Your task to perform on an android device: Go to CNN.com Image 0: 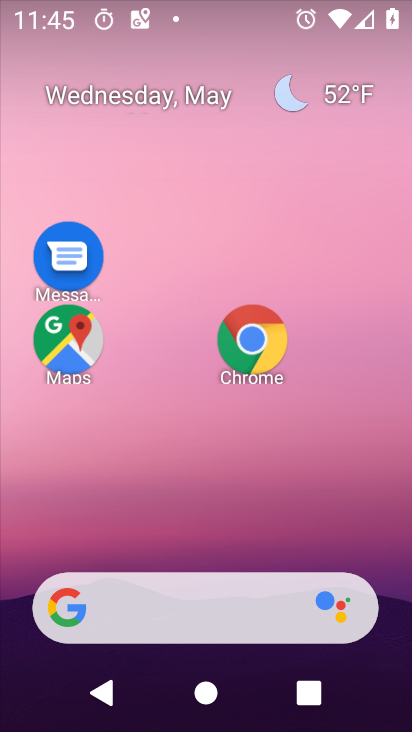
Step 0: drag from (165, 522) to (203, 45)
Your task to perform on an android device: Go to CNN.com Image 1: 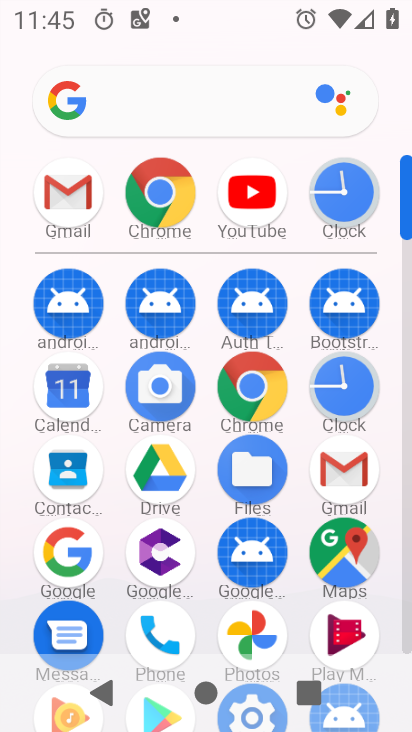
Step 1: click (71, 559)
Your task to perform on an android device: Go to CNN.com Image 2: 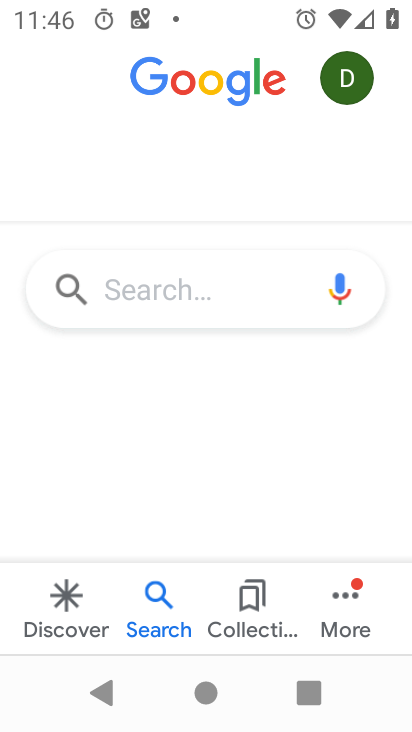
Step 2: click (160, 286)
Your task to perform on an android device: Go to CNN.com Image 3: 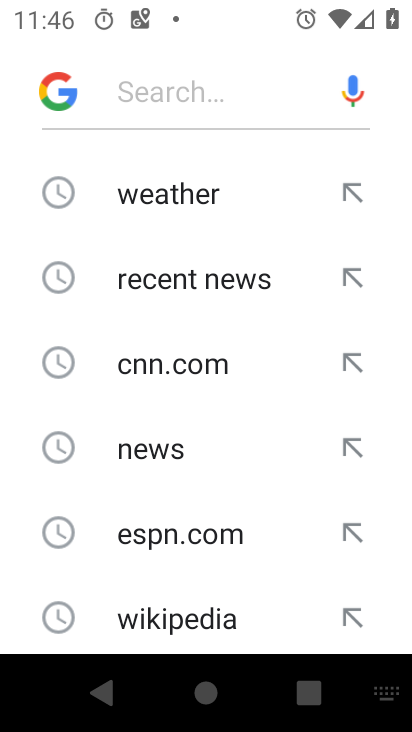
Step 3: click (166, 375)
Your task to perform on an android device: Go to CNN.com Image 4: 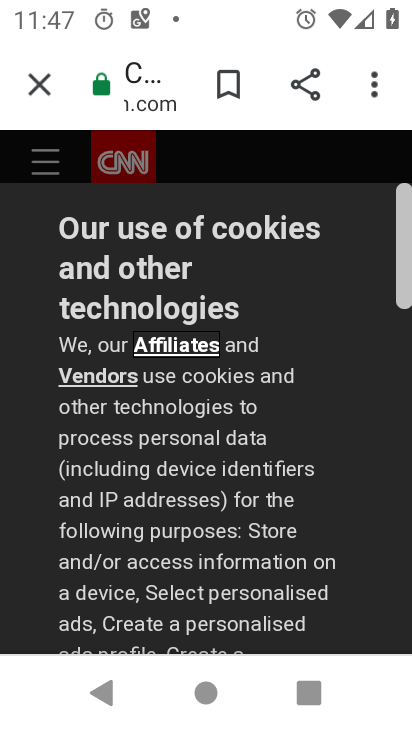
Step 4: task complete